Your task to perform on an android device: Open display settings Image 0: 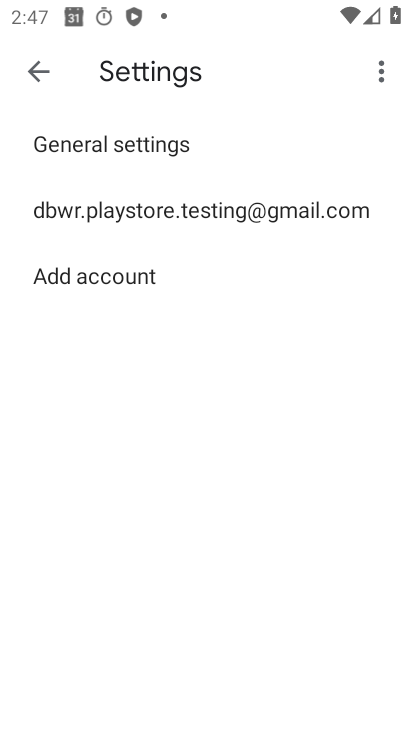
Step 0: press home button
Your task to perform on an android device: Open display settings Image 1: 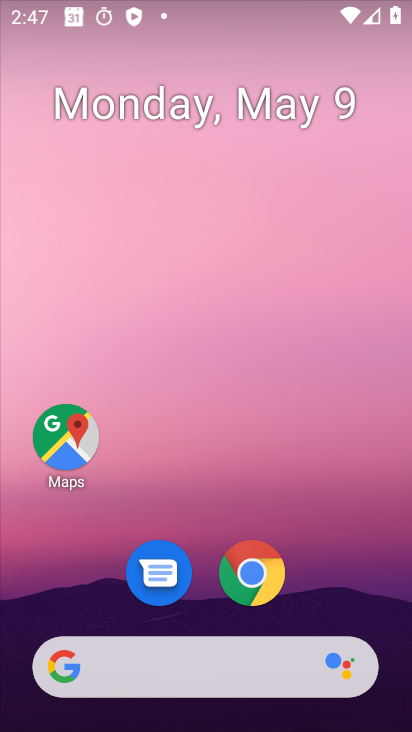
Step 1: drag from (326, 638) to (173, 56)
Your task to perform on an android device: Open display settings Image 2: 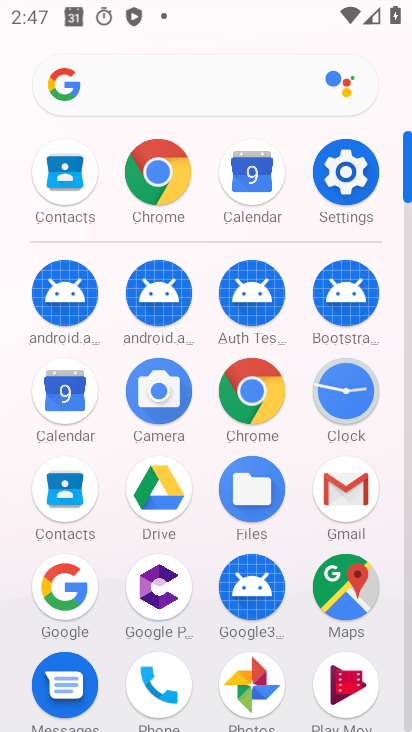
Step 2: click (350, 172)
Your task to perform on an android device: Open display settings Image 3: 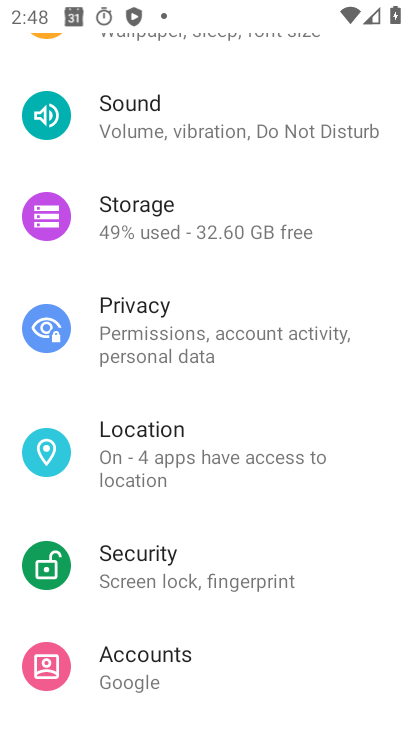
Step 3: drag from (186, 577) to (170, 71)
Your task to perform on an android device: Open display settings Image 4: 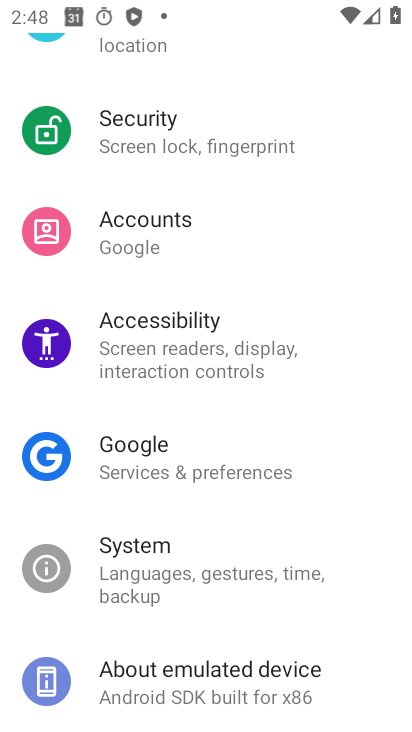
Step 4: drag from (173, 279) to (237, 586)
Your task to perform on an android device: Open display settings Image 5: 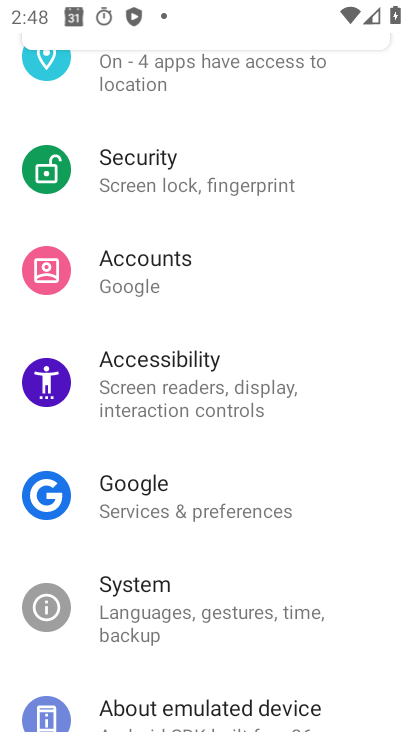
Step 5: drag from (155, 202) to (218, 586)
Your task to perform on an android device: Open display settings Image 6: 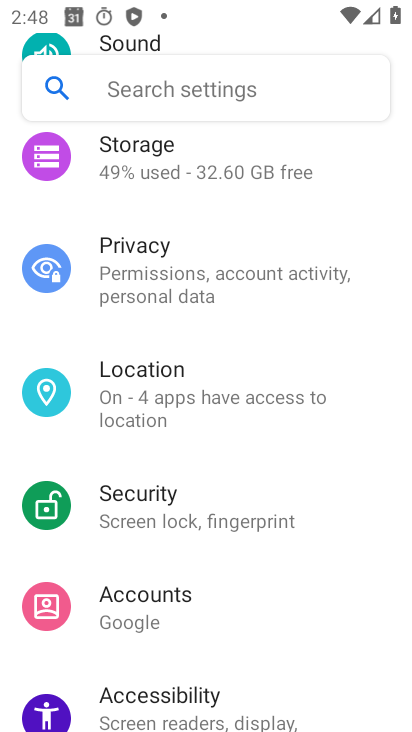
Step 6: drag from (168, 265) to (173, 613)
Your task to perform on an android device: Open display settings Image 7: 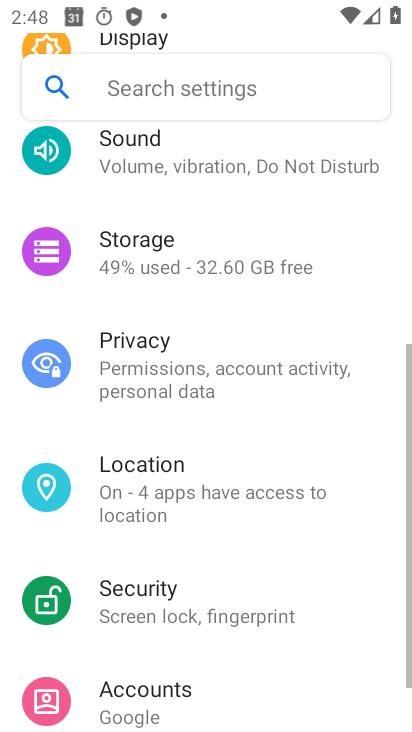
Step 7: drag from (151, 297) to (192, 534)
Your task to perform on an android device: Open display settings Image 8: 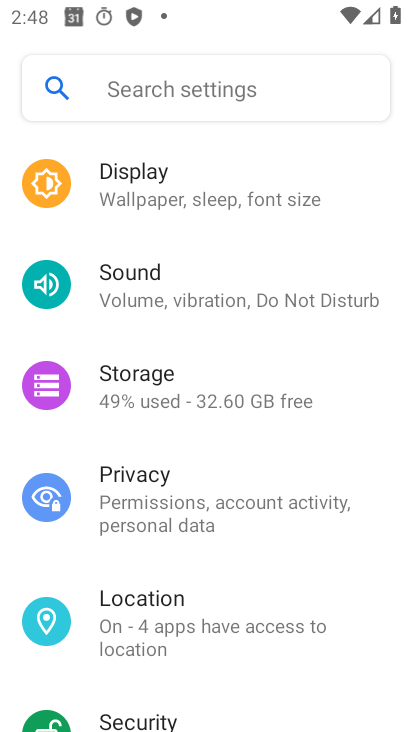
Step 8: drag from (194, 193) to (278, 476)
Your task to perform on an android device: Open display settings Image 9: 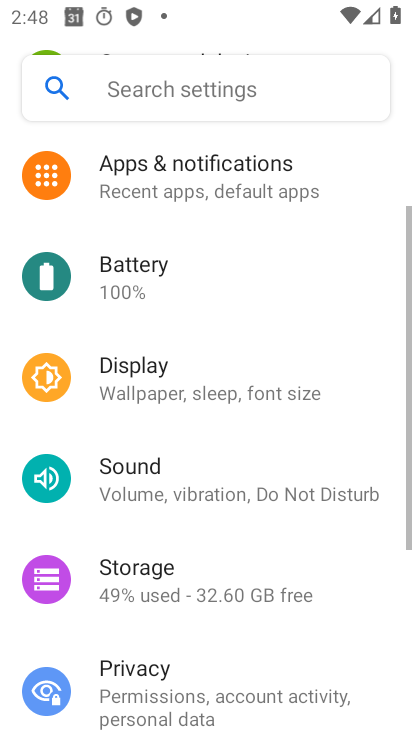
Step 9: drag from (209, 217) to (223, 522)
Your task to perform on an android device: Open display settings Image 10: 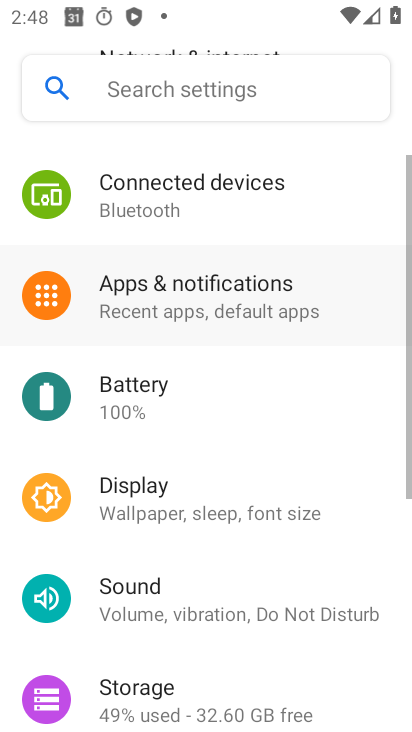
Step 10: drag from (171, 224) to (123, 551)
Your task to perform on an android device: Open display settings Image 11: 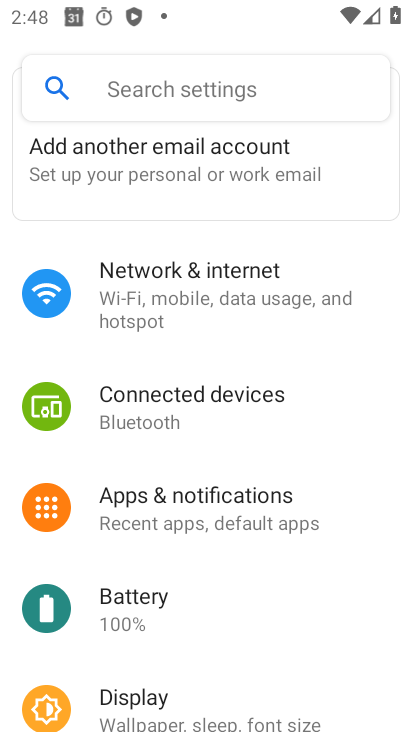
Step 11: drag from (144, 529) to (134, 243)
Your task to perform on an android device: Open display settings Image 12: 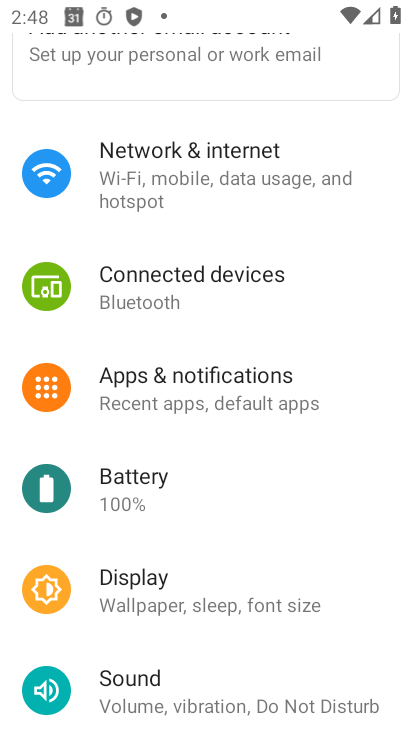
Step 12: click (136, 577)
Your task to perform on an android device: Open display settings Image 13: 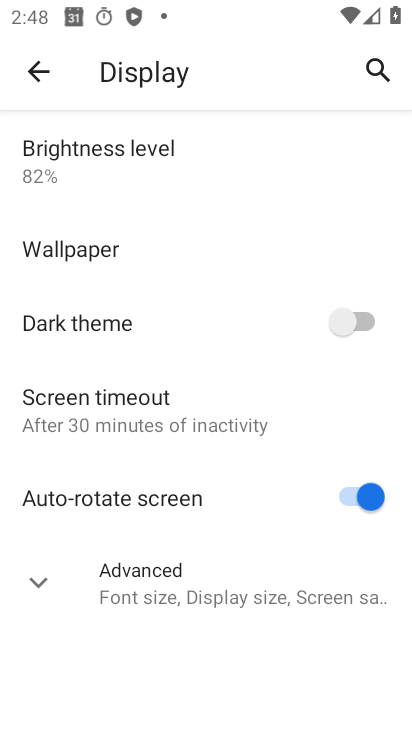
Step 13: task complete